Your task to perform on an android device: Open Google Chrome and open the bookmarks view Image 0: 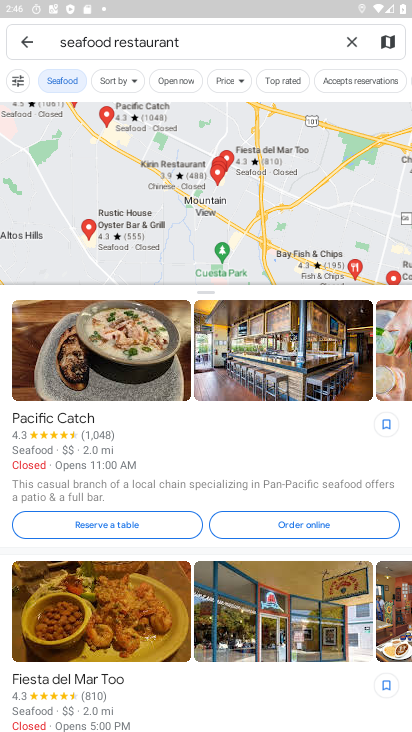
Step 0: press home button
Your task to perform on an android device: Open Google Chrome and open the bookmarks view Image 1: 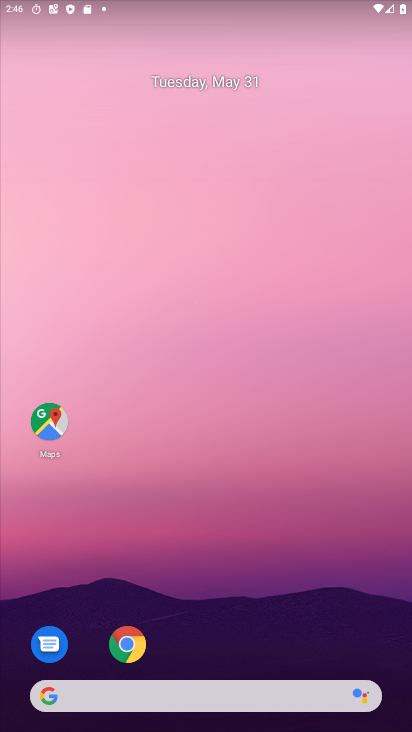
Step 1: click (129, 634)
Your task to perform on an android device: Open Google Chrome and open the bookmarks view Image 2: 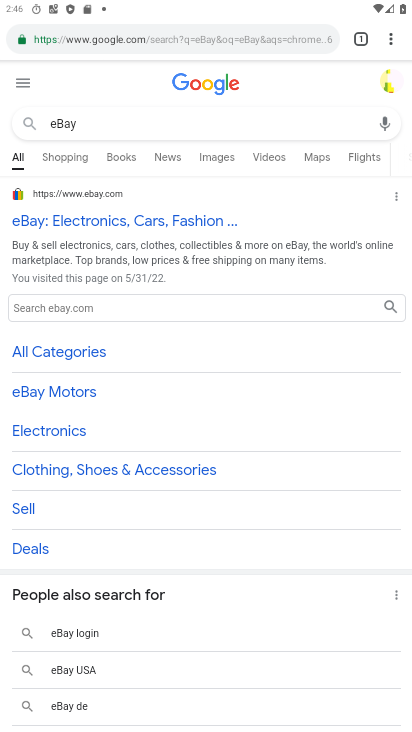
Step 2: click (390, 40)
Your task to perform on an android device: Open Google Chrome and open the bookmarks view Image 3: 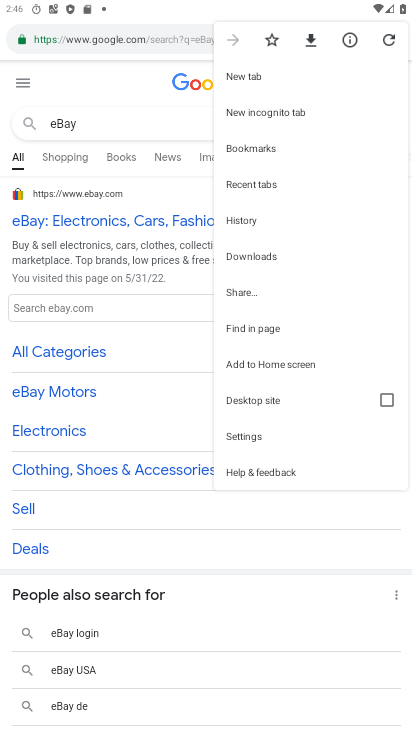
Step 3: click (251, 148)
Your task to perform on an android device: Open Google Chrome and open the bookmarks view Image 4: 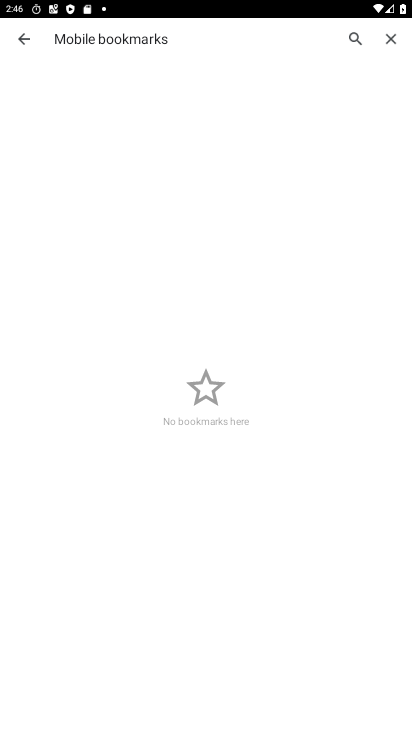
Step 4: task complete